Your task to perform on an android device: add a contact in the contacts app Image 0: 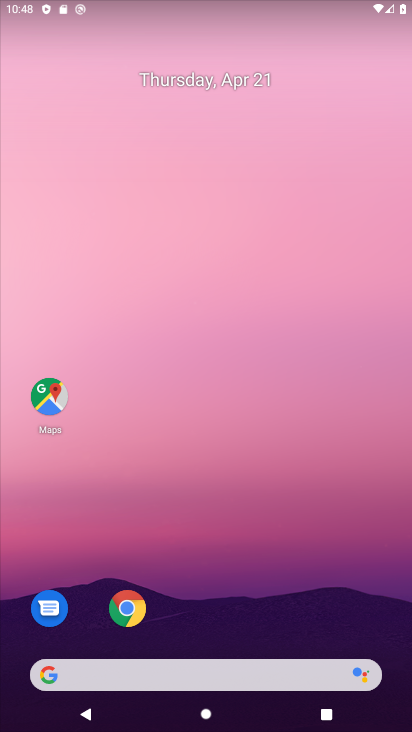
Step 0: drag from (257, 546) to (233, 38)
Your task to perform on an android device: add a contact in the contacts app Image 1: 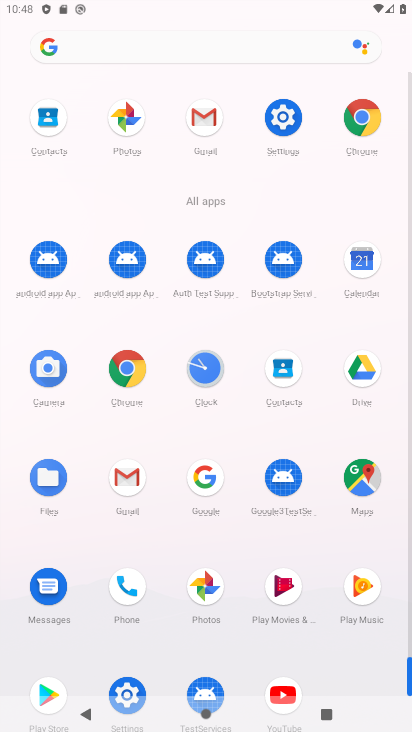
Step 1: click (288, 370)
Your task to perform on an android device: add a contact in the contacts app Image 2: 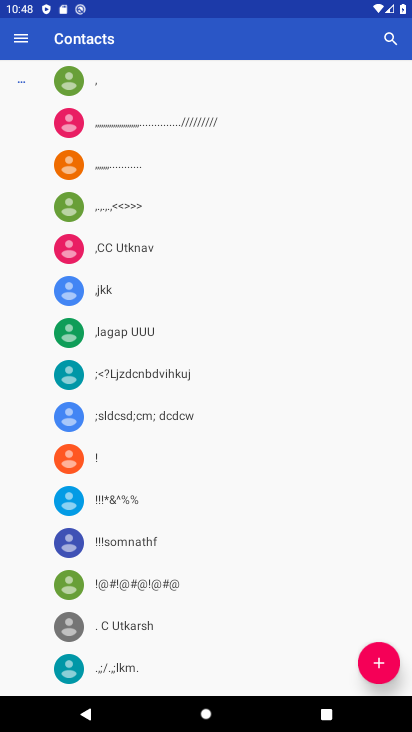
Step 2: click (380, 663)
Your task to perform on an android device: add a contact in the contacts app Image 3: 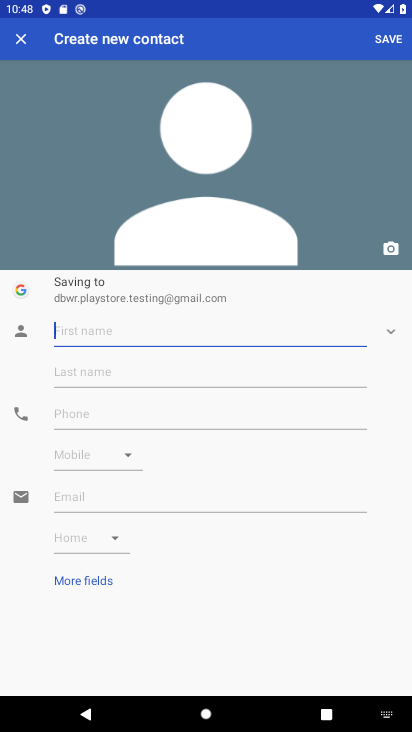
Step 3: click (118, 335)
Your task to perform on an android device: add a contact in the contacts app Image 4: 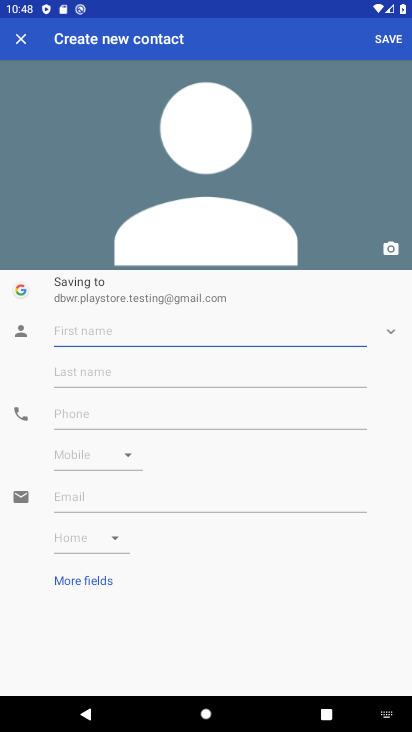
Step 4: type "Tamanna"
Your task to perform on an android device: add a contact in the contacts app Image 5: 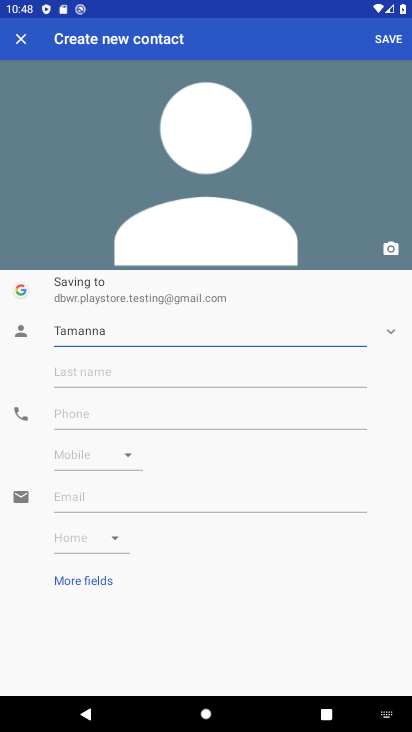
Step 5: click (200, 381)
Your task to perform on an android device: add a contact in the contacts app Image 6: 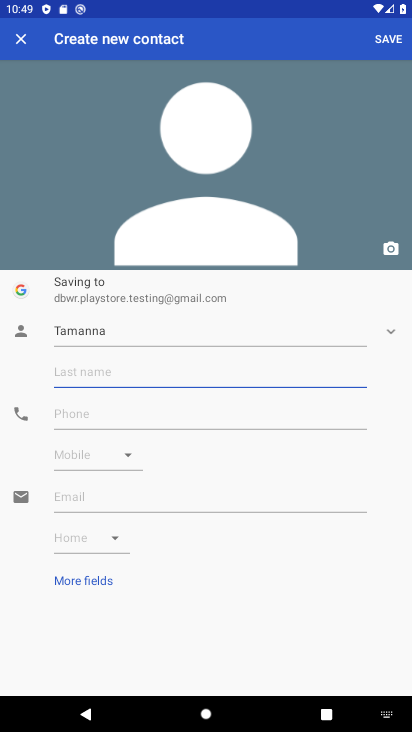
Step 6: type "Bhatiya"
Your task to perform on an android device: add a contact in the contacts app Image 7: 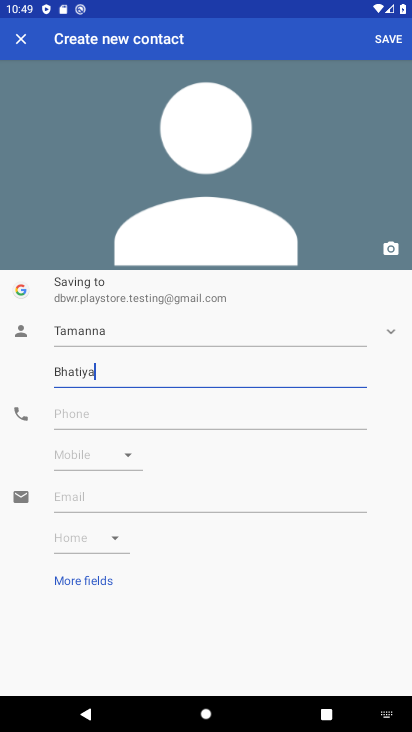
Step 7: type ""
Your task to perform on an android device: add a contact in the contacts app Image 8: 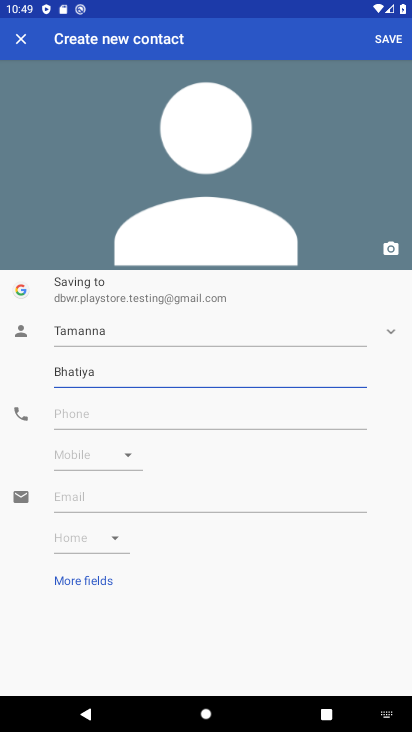
Step 8: click (146, 408)
Your task to perform on an android device: add a contact in the contacts app Image 9: 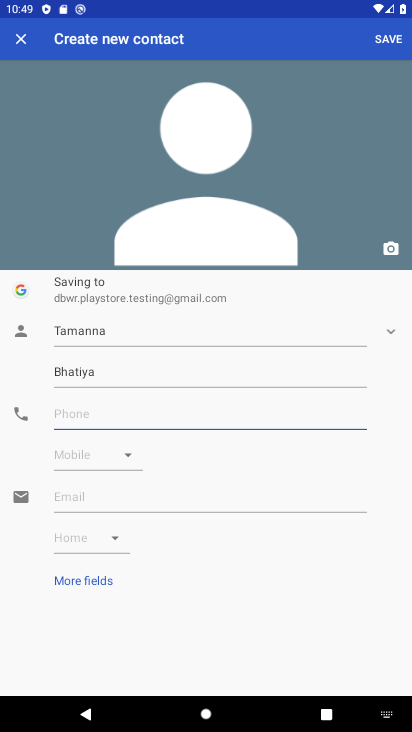
Step 9: type "096350663862"
Your task to perform on an android device: add a contact in the contacts app Image 10: 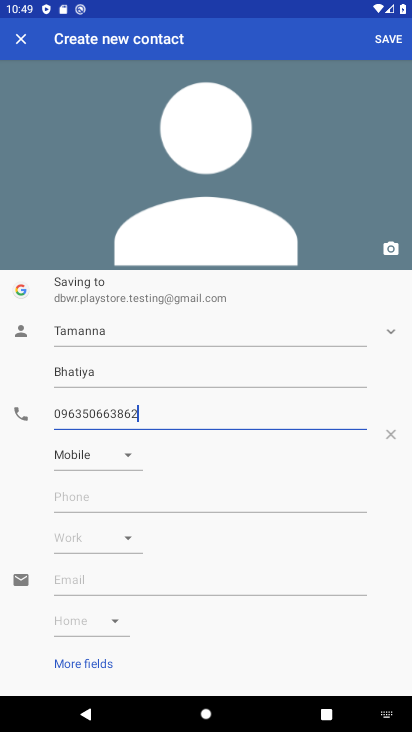
Step 10: type ""
Your task to perform on an android device: add a contact in the contacts app Image 11: 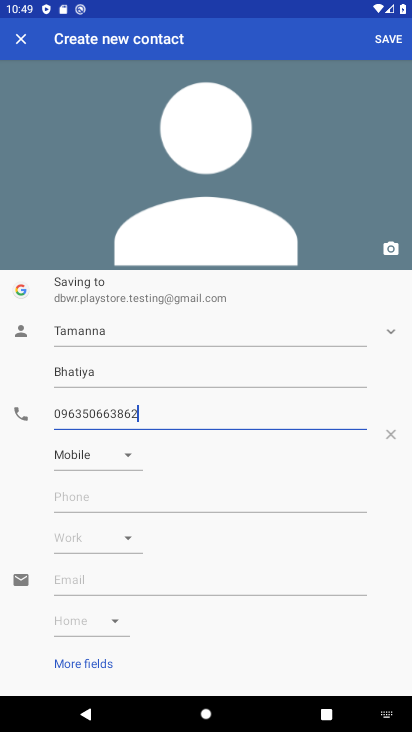
Step 11: click (391, 39)
Your task to perform on an android device: add a contact in the contacts app Image 12: 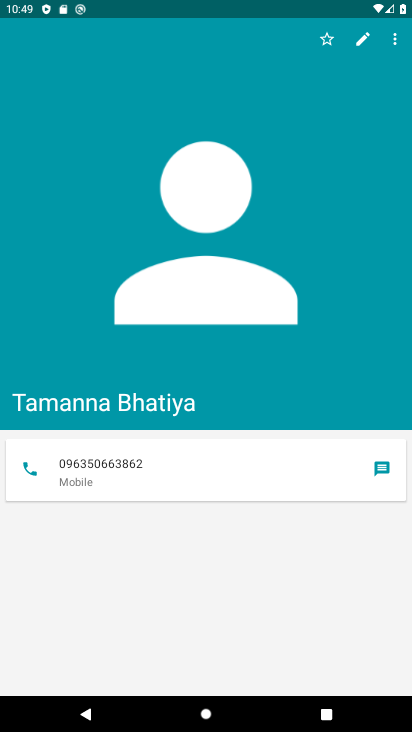
Step 12: task complete